Your task to perform on an android device: What's the latest technology news? Image 0: 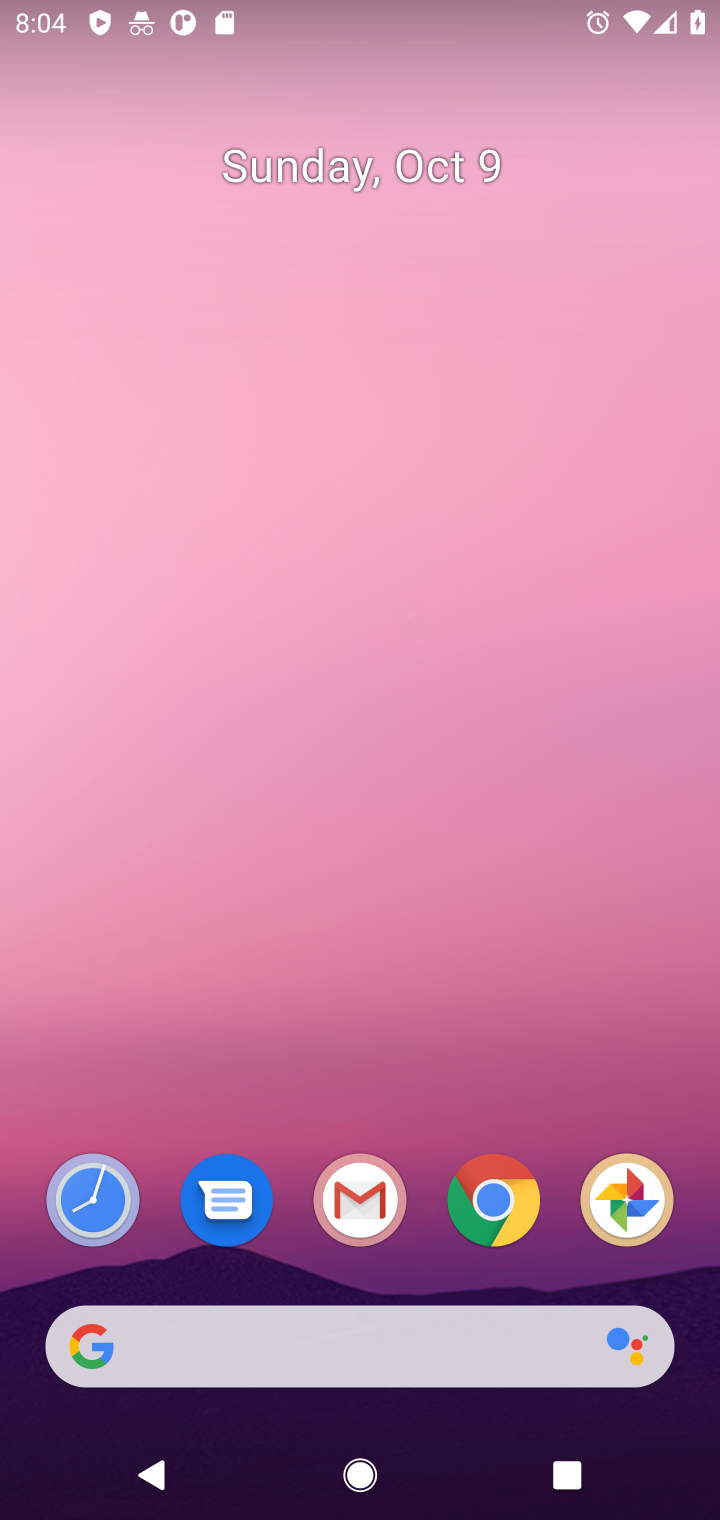
Step 0: click (500, 1180)
Your task to perform on an android device: What's the latest technology news? Image 1: 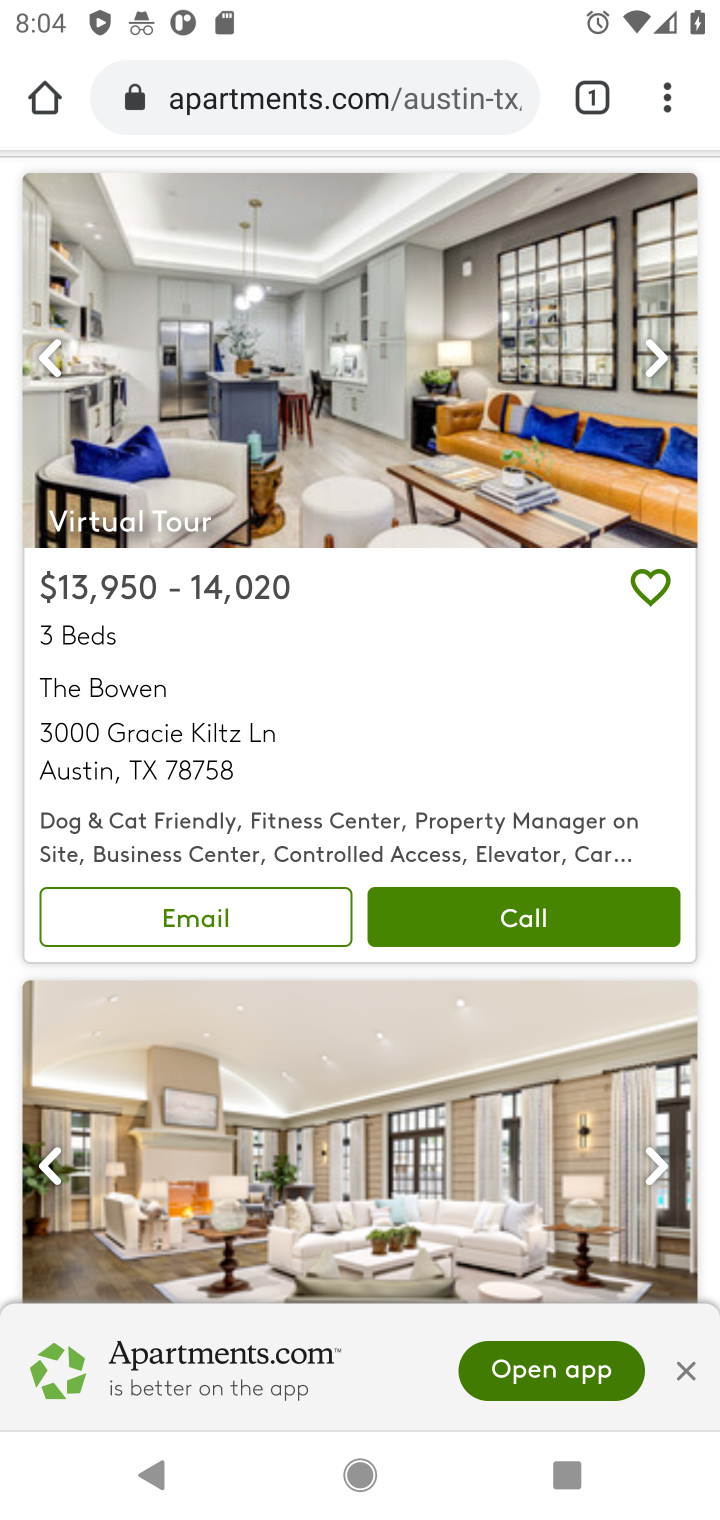
Step 1: click (286, 103)
Your task to perform on an android device: What's the latest technology news? Image 2: 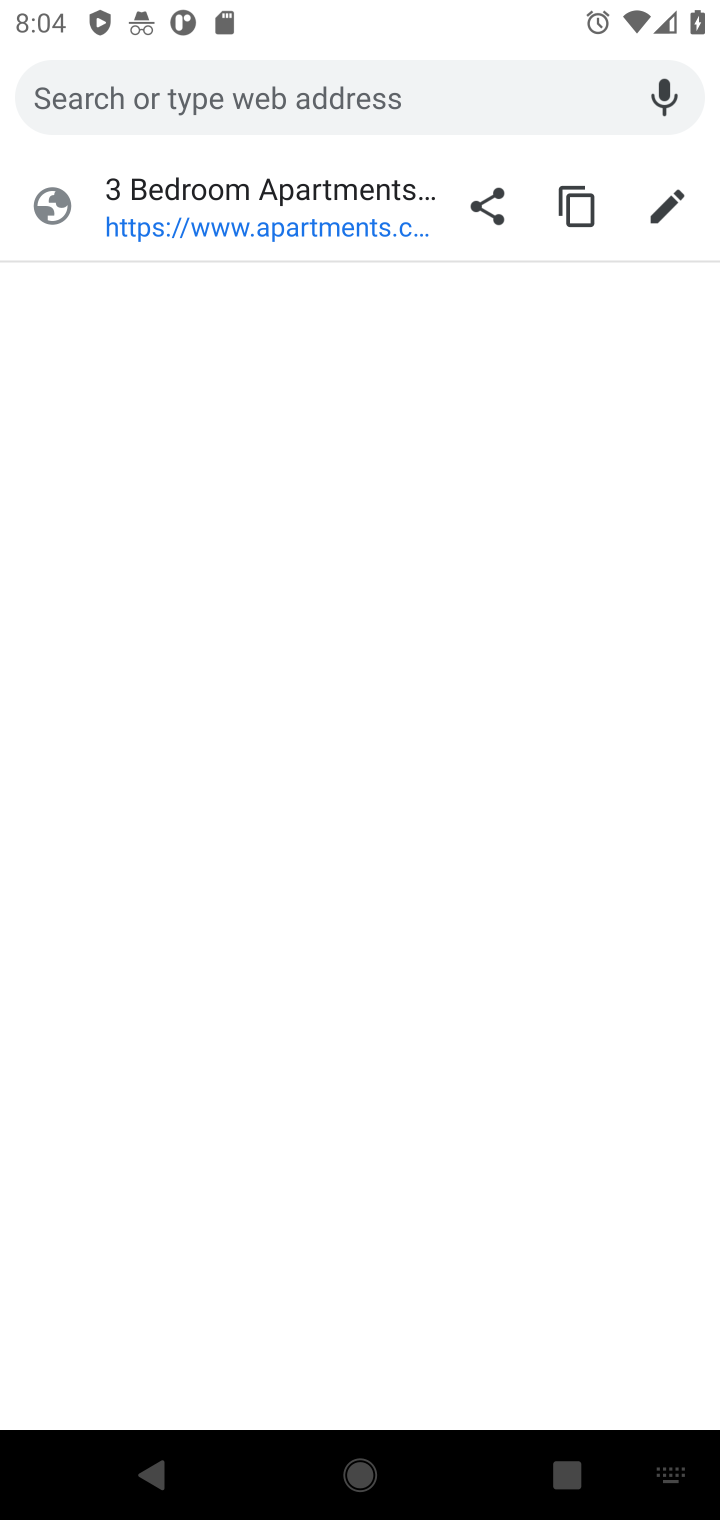
Step 2: type "latest technology news"
Your task to perform on an android device: What's the latest technology news? Image 3: 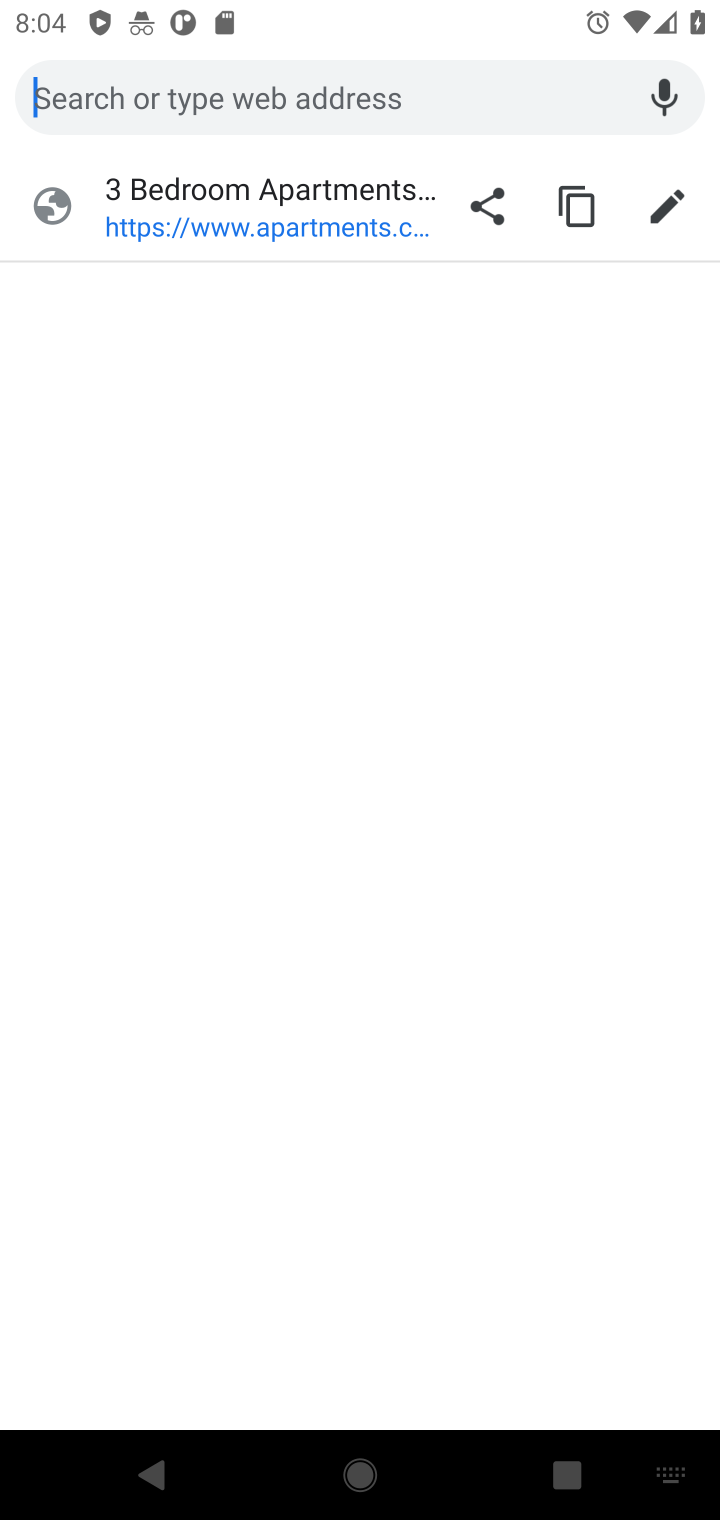
Step 3: click (465, 103)
Your task to perform on an android device: What's the latest technology news? Image 4: 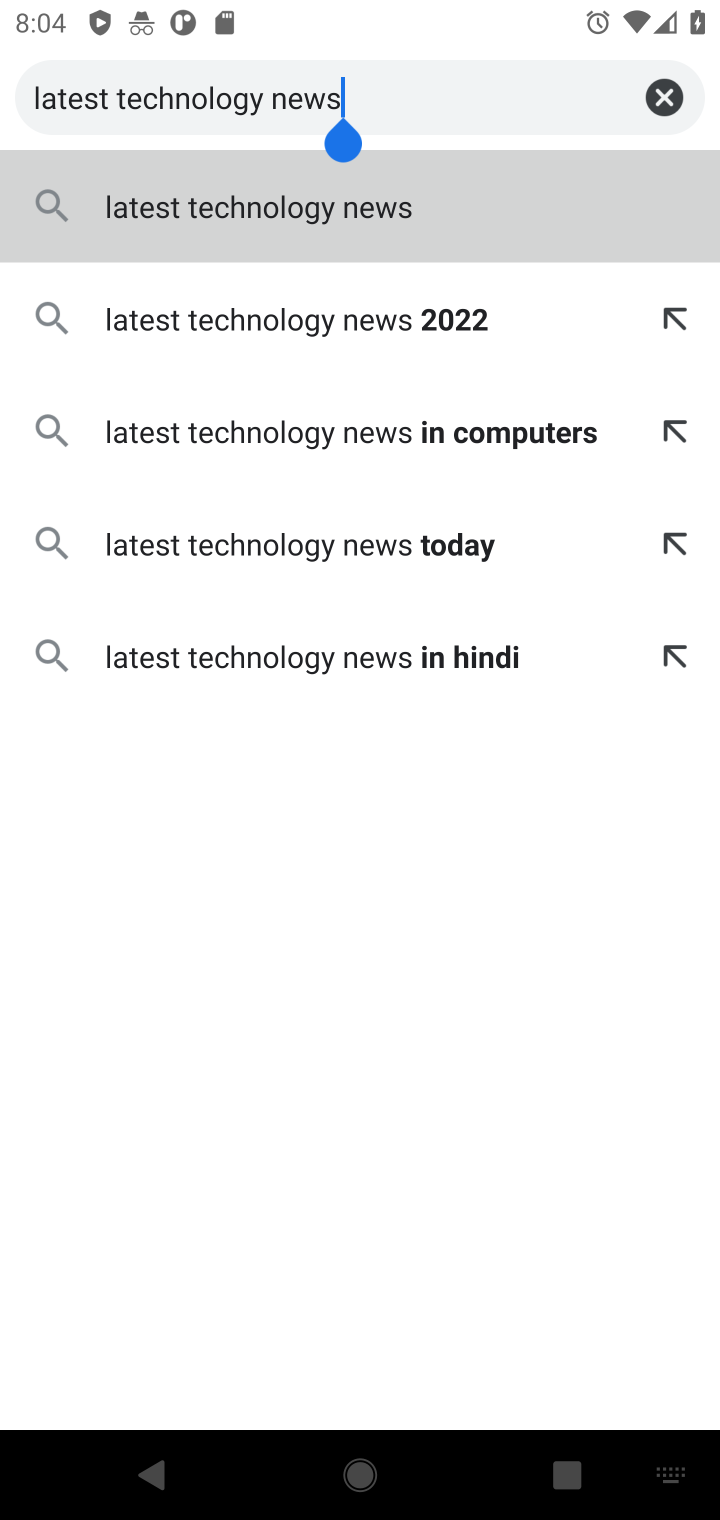
Step 4: type "latest technology news"
Your task to perform on an android device: What's the latest technology news? Image 5: 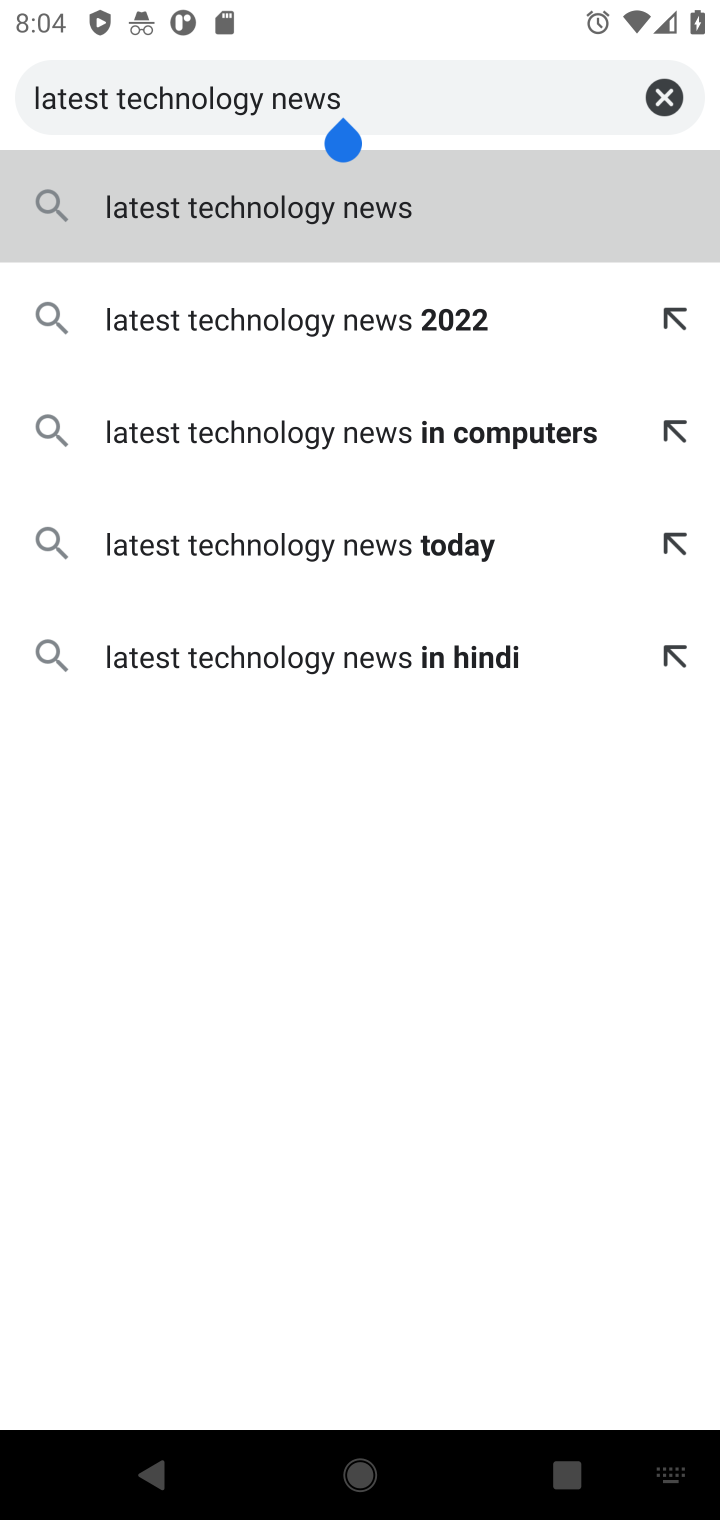
Step 5: click (407, 214)
Your task to perform on an android device: What's the latest technology news? Image 6: 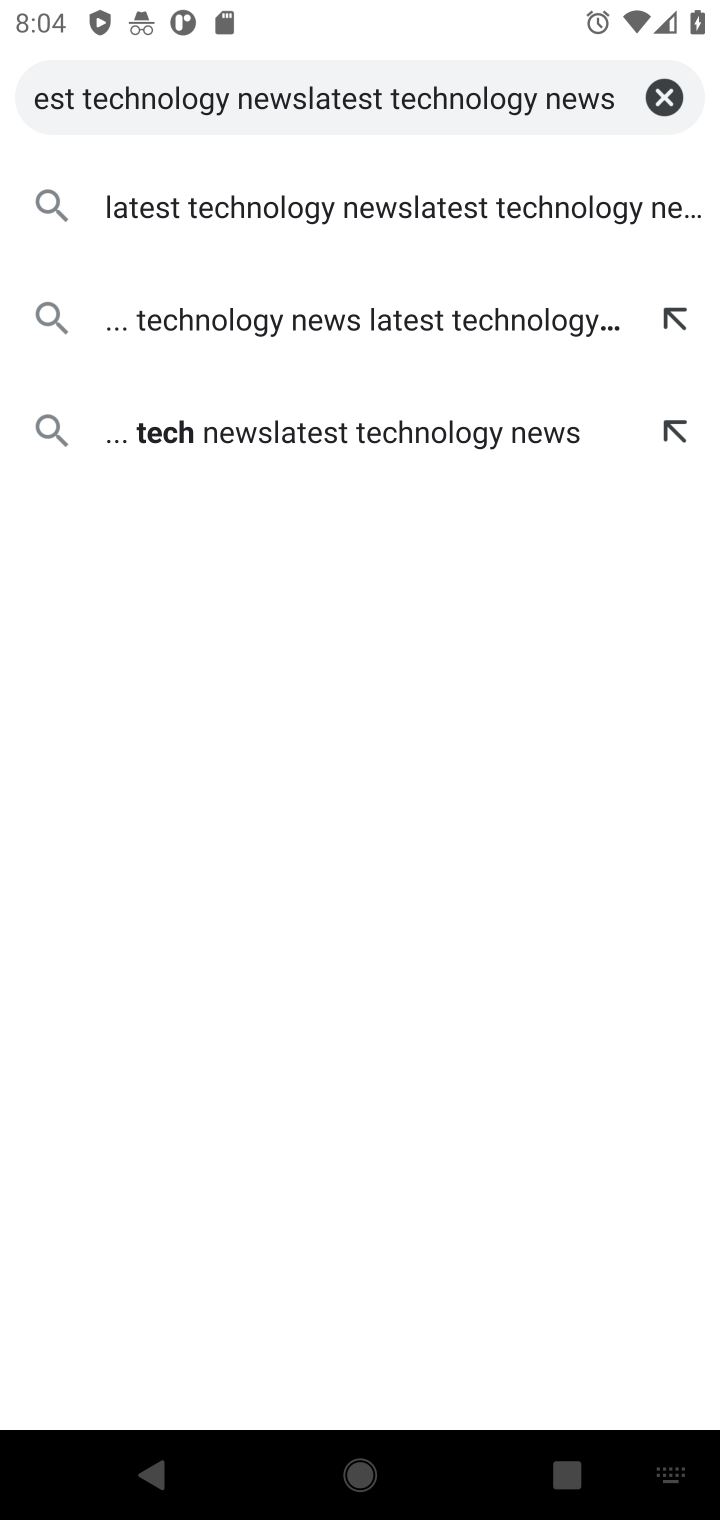
Step 6: click (656, 101)
Your task to perform on an android device: What's the latest technology news? Image 7: 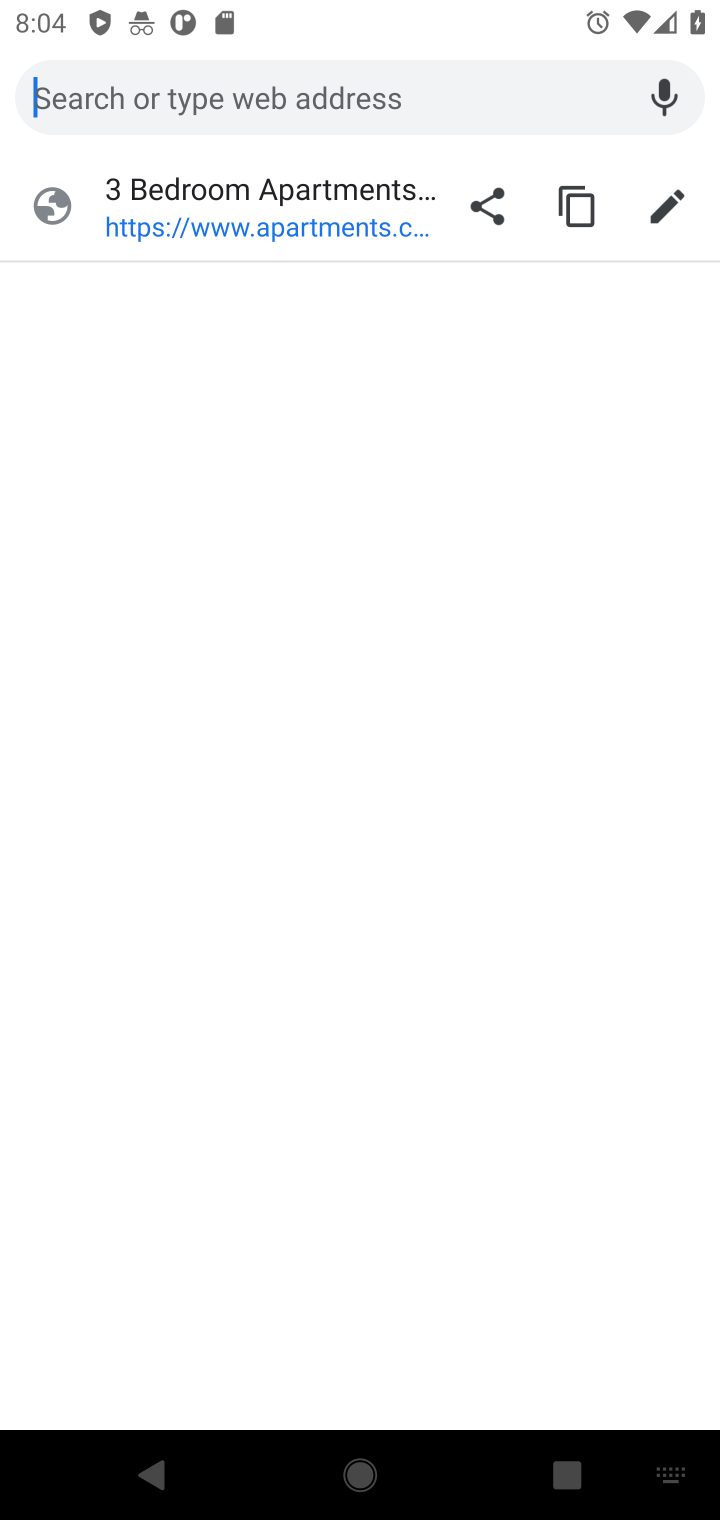
Step 7: type "latest technology news"
Your task to perform on an android device: What's the latest technology news? Image 8: 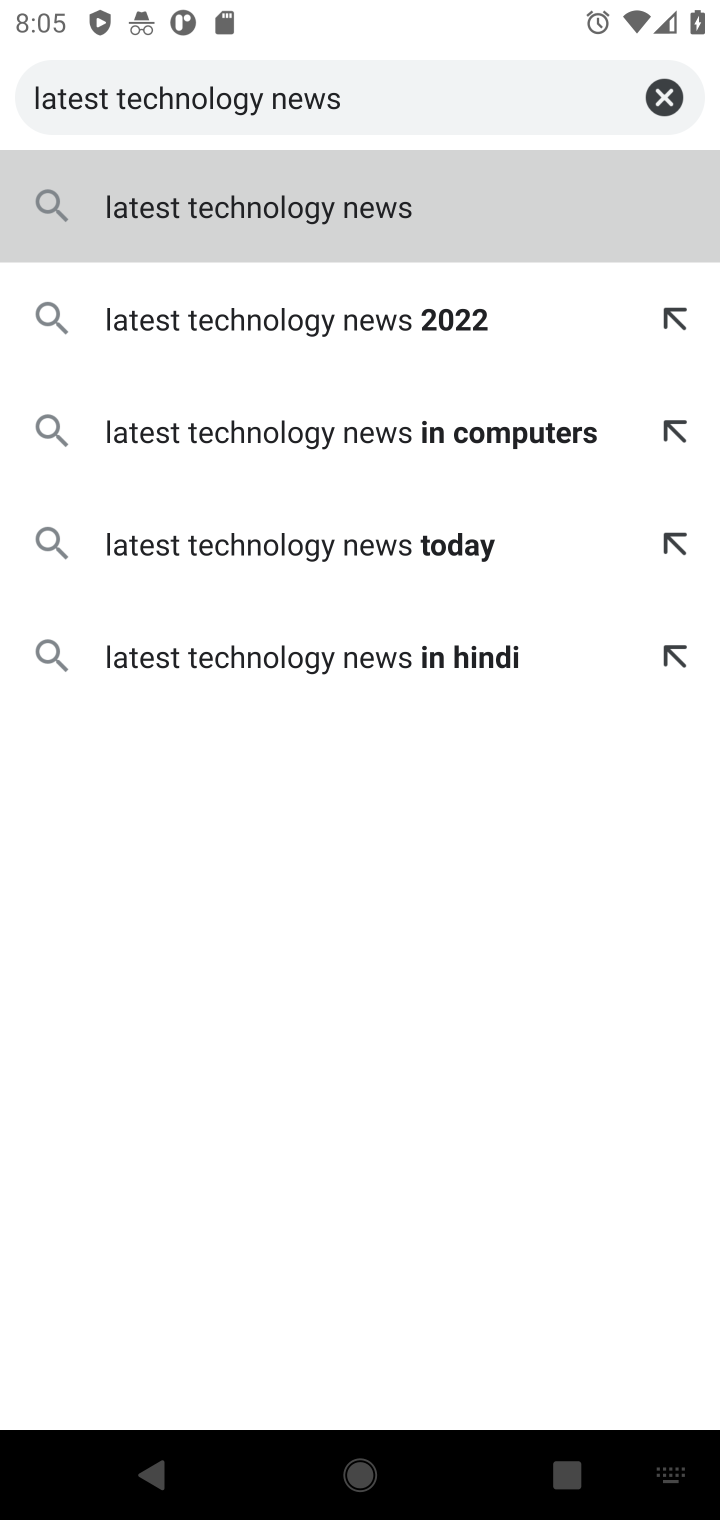
Step 8: type ""
Your task to perform on an android device: What's the latest technology news? Image 9: 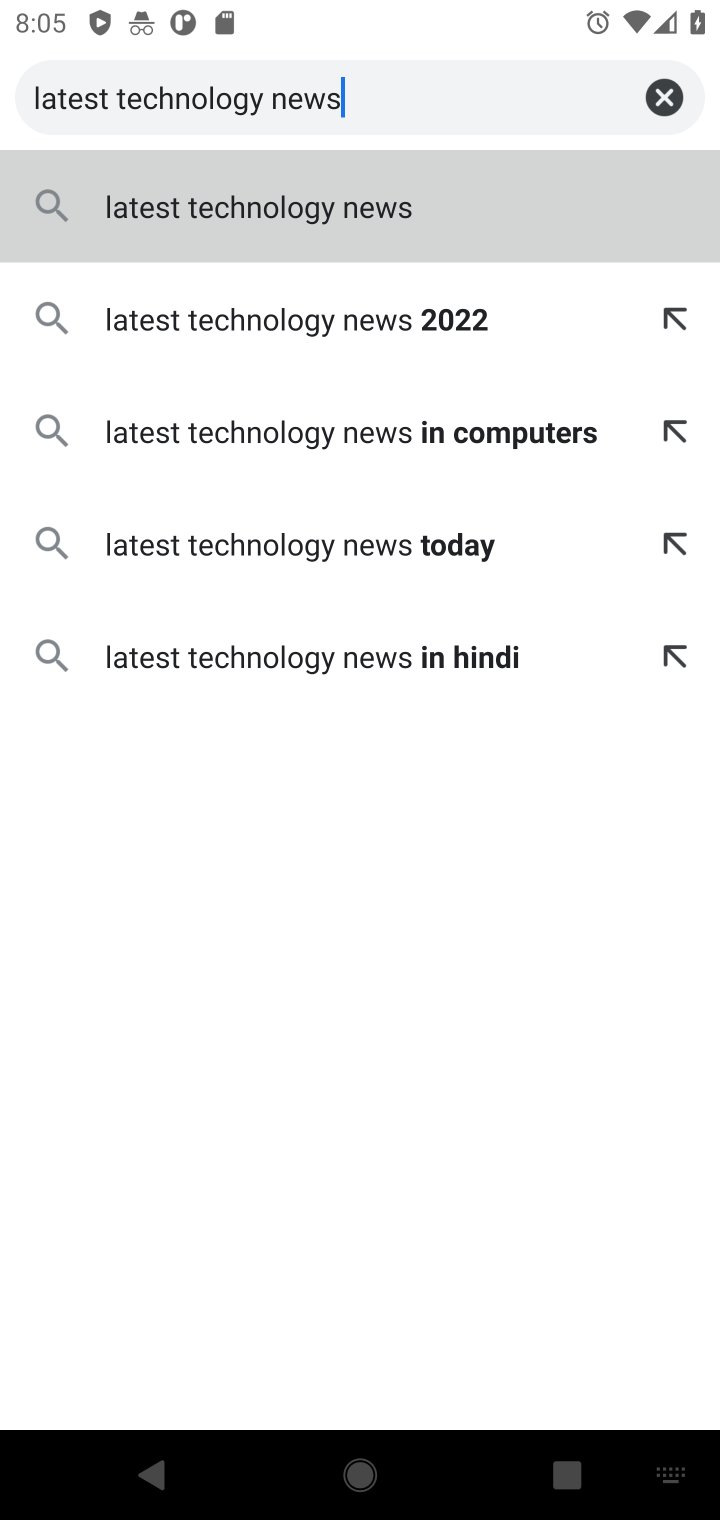
Step 9: click (410, 211)
Your task to perform on an android device: What's the latest technology news? Image 10: 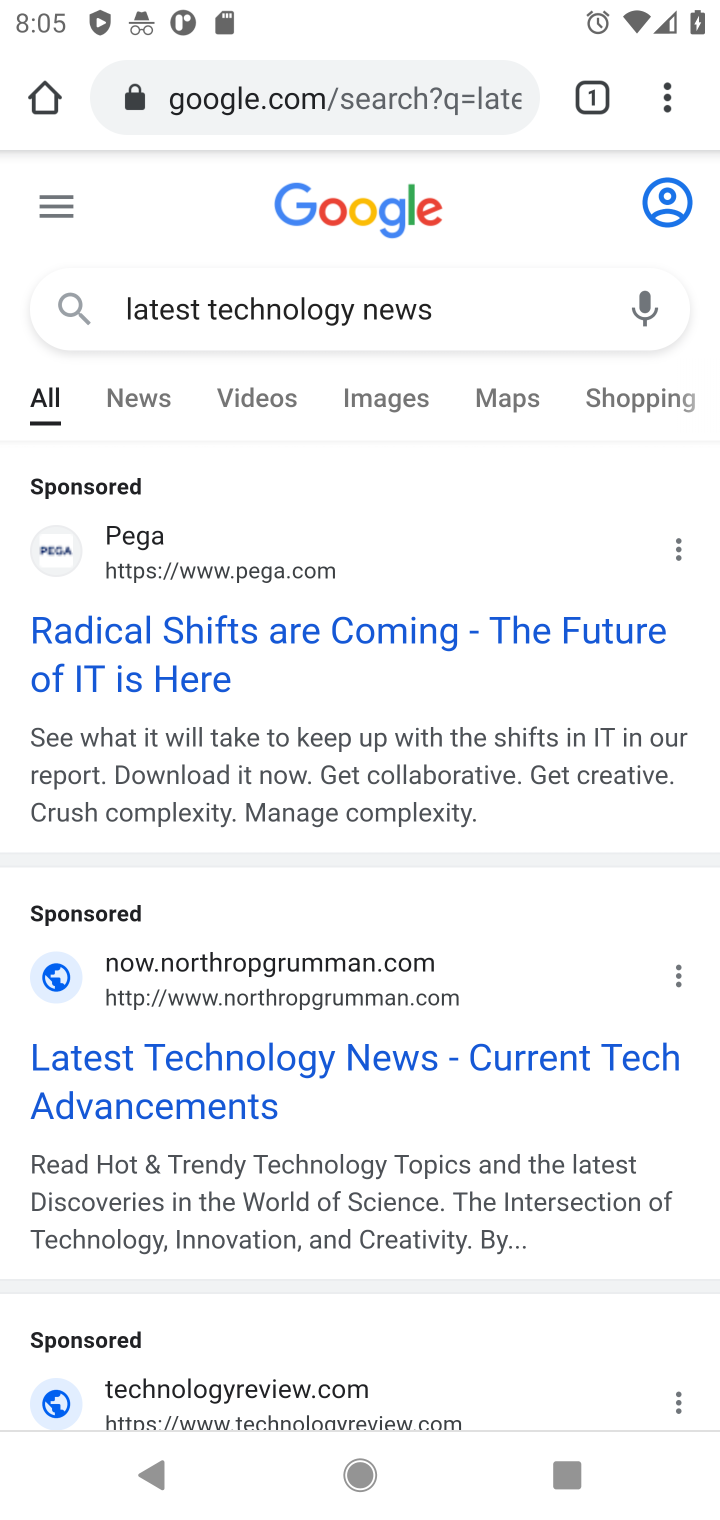
Step 10: click (143, 394)
Your task to perform on an android device: What's the latest technology news? Image 11: 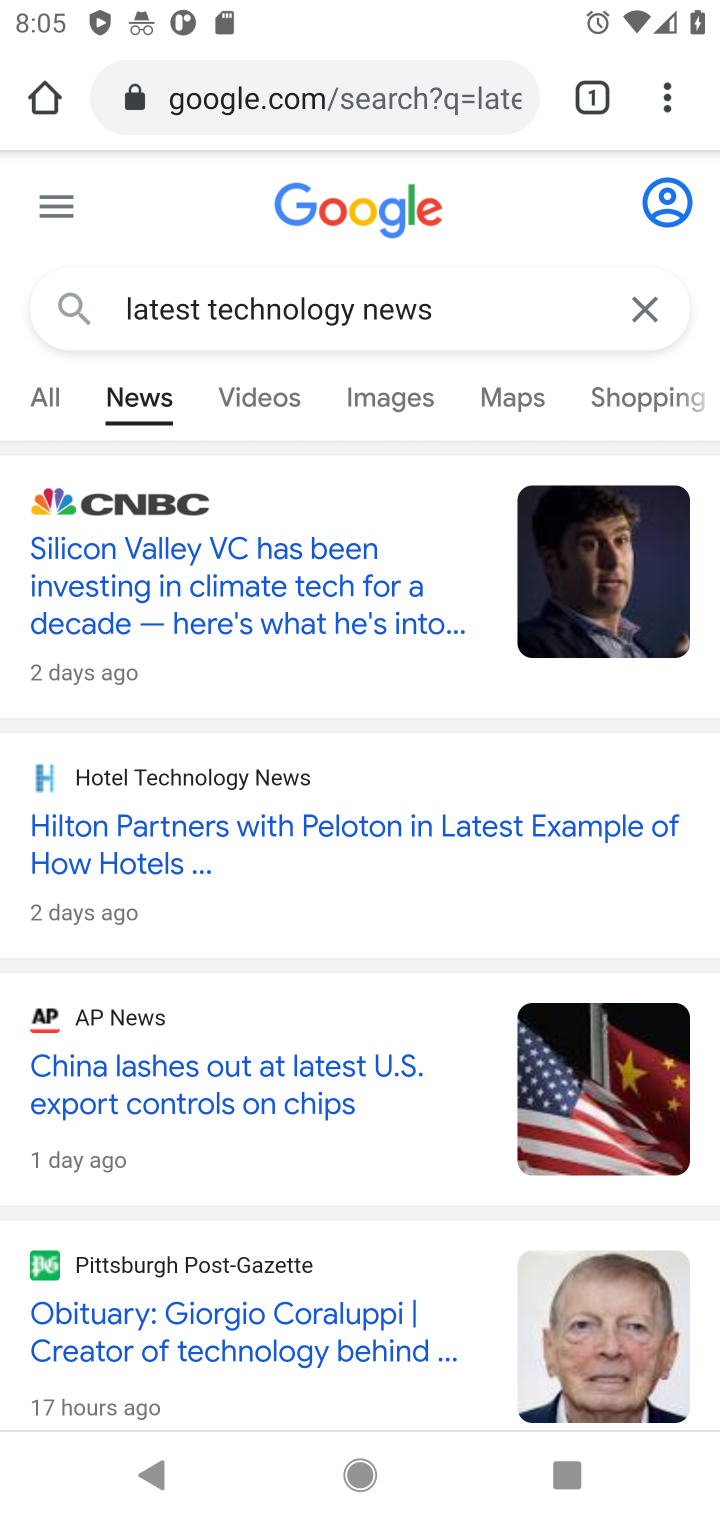
Step 11: task complete